Your task to perform on an android device: turn off priority inbox in the gmail app Image 0: 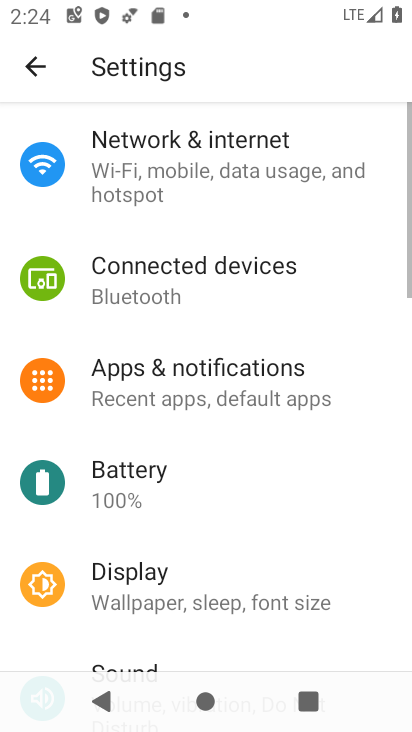
Step 0: press home button
Your task to perform on an android device: turn off priority inbox in the gmail app Image 1: 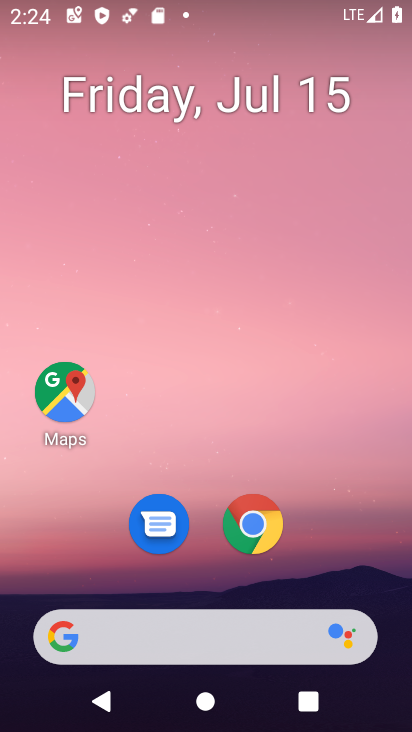
Step 1: drag from (178, 638) to (279, 57)
Your task to perform on an android device: turn off priority inbox in the gmail app Image 2: 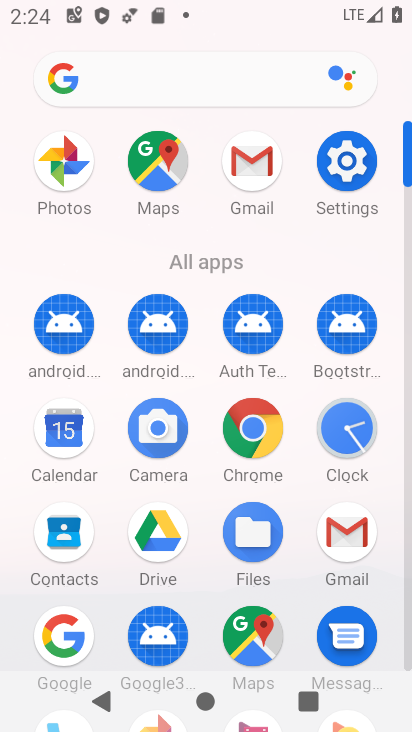
Step 2: click (246, 162)
Your task to perform on an android device: turn off priority inbox in the gmail app Image 3: 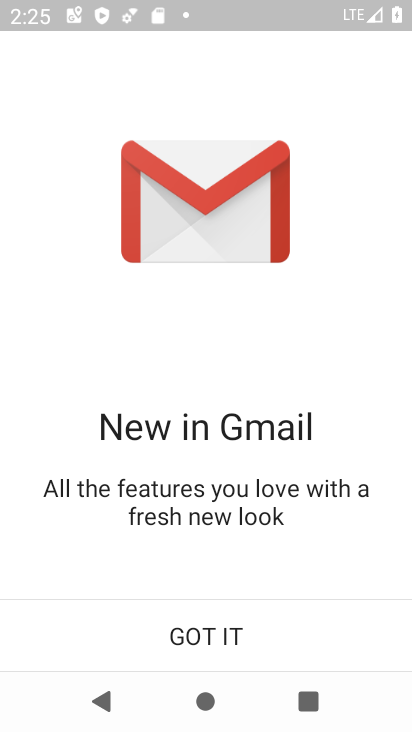
Step 3: click (195, 643)
Your task to perform on an android device: turn off priority inbox in the gmail app Image 4: 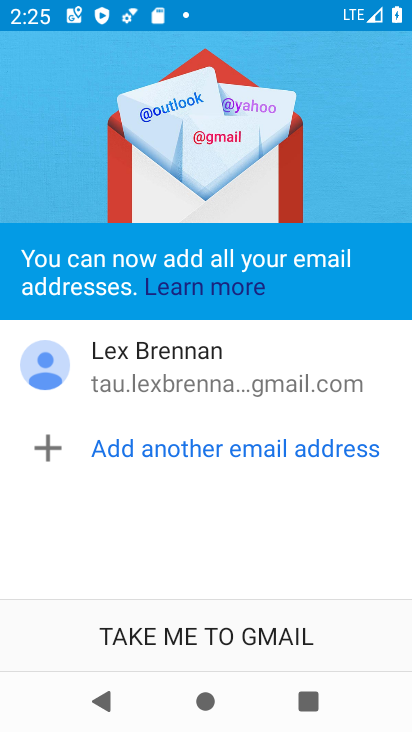
Step 4: click (195, 642)
Your task to perform on an android device: turn off priority inbox in the gmail app Image 5: 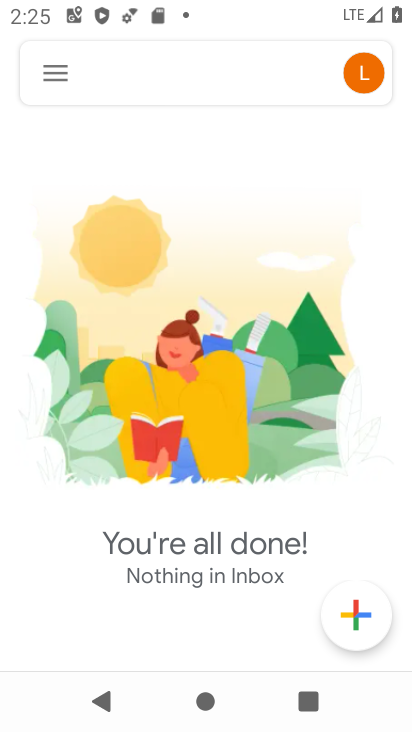
Step 5: click (52, 70)
Your task to perform on an android device: turn off priority inbox in the gmail app Image 6: 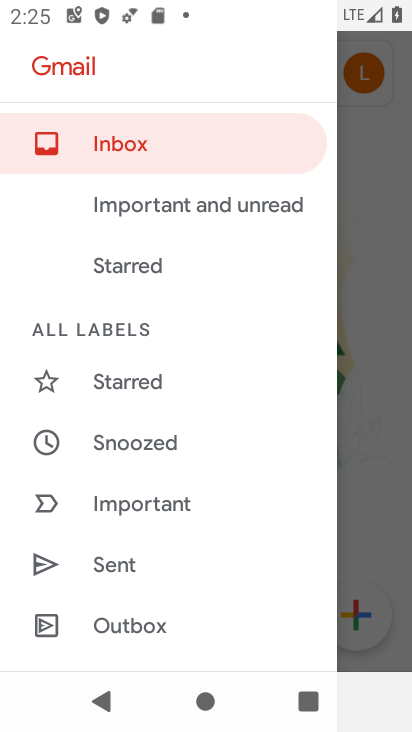
Step 6: drag from (192, 593) to (237, 229)
Your task to perform on an android device: turn off priority inbox in the gmail app Image 7: 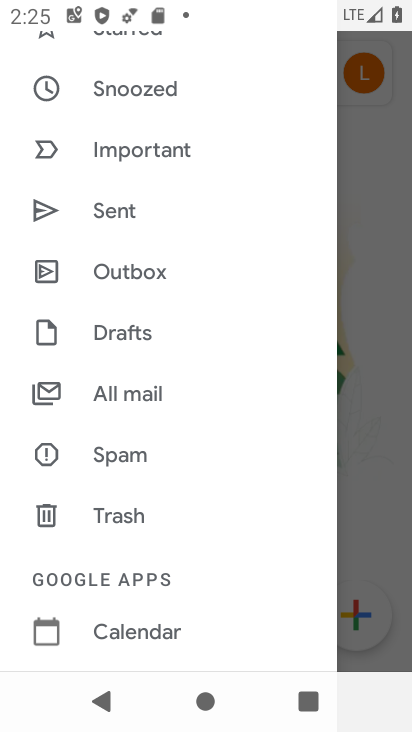
Step 7: drag from (191, 544) to (278, 139)
Your task to perform on an android device: turn off priority inbox in the gmail app Image 8: 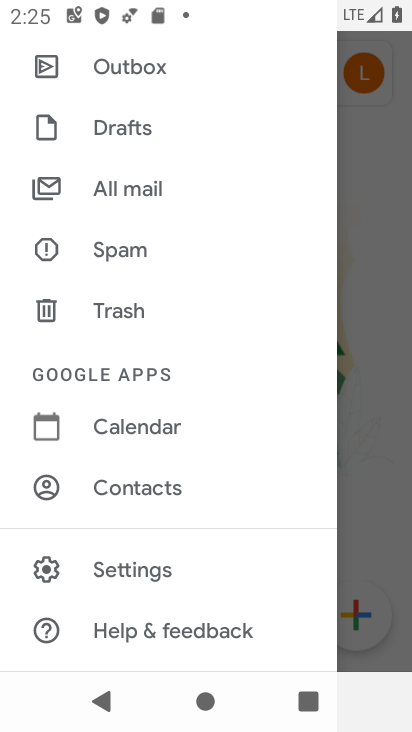
Step 8: click (152, 565)
Your task to perform on an android device: turn off priority inbox in the gmail app Image 9: 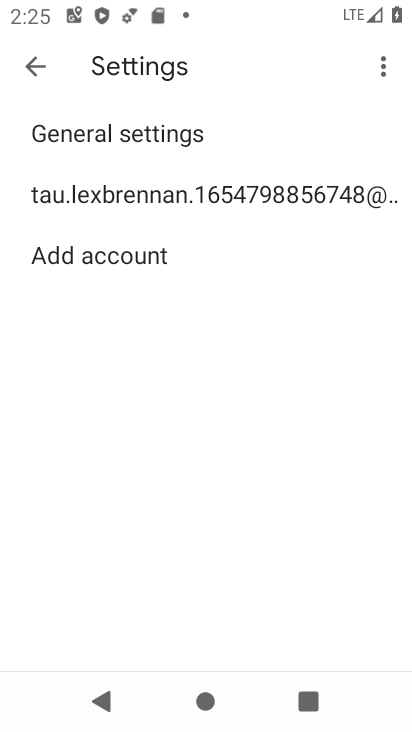
Step 9: click (274, 185)
Your task to perform on an android device: turn off priority inbox in the gmail app Image 10: 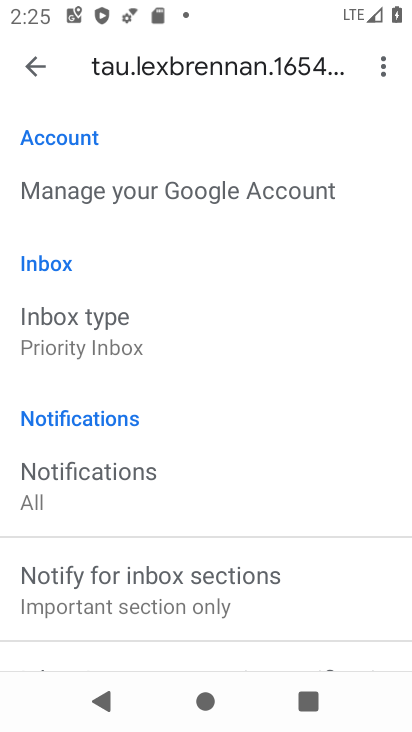
Step 10: click (115, 327)
Your task to perform on an android device: turn off priority inbox in the gmail app Image 11: 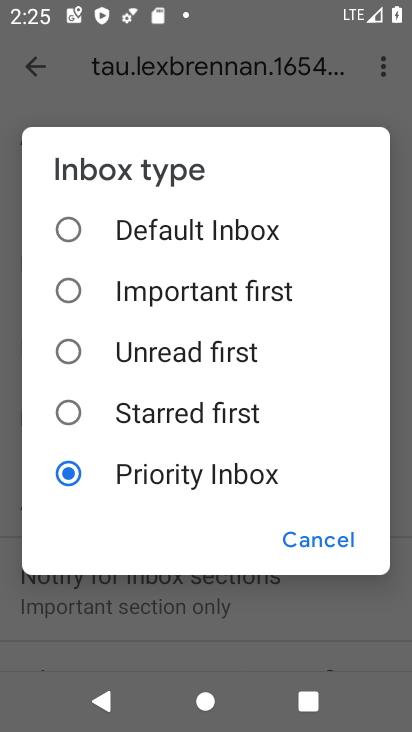
Step 11: click (75, 233)
Your task to perform on an android device: turn off priority inbox in the gmail app Image 12: 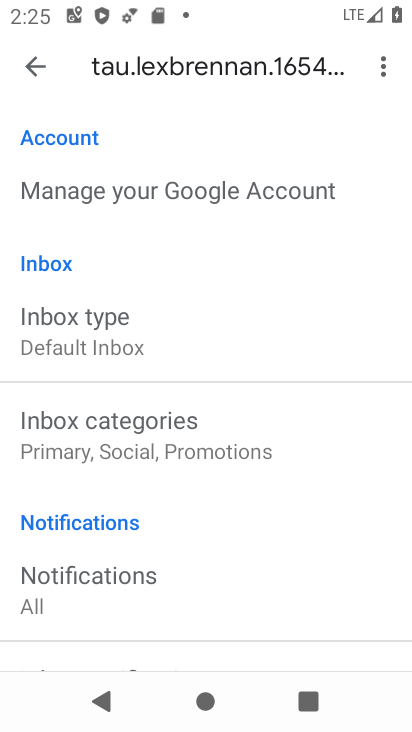
Step 12: task complete